Your task to perform on an android device: turn on javascript in the chrome app Image 0: 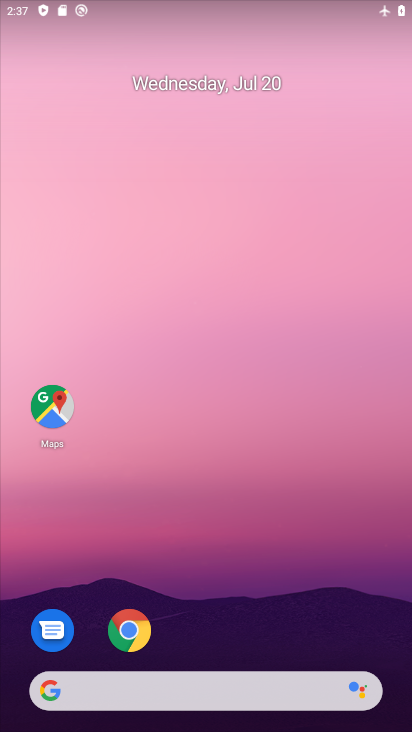
Step 0: drag from (248, 689) to (215, 192)
Your task to perform on an android device: turn on javascript in the chrome app Image 1: 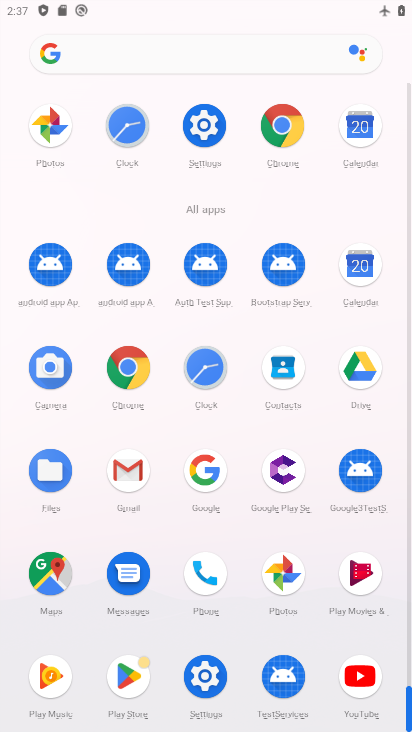
Step 1: click (287, 118)
Your task to perform on an android device: turn on javascript in the chrome app Image 2: 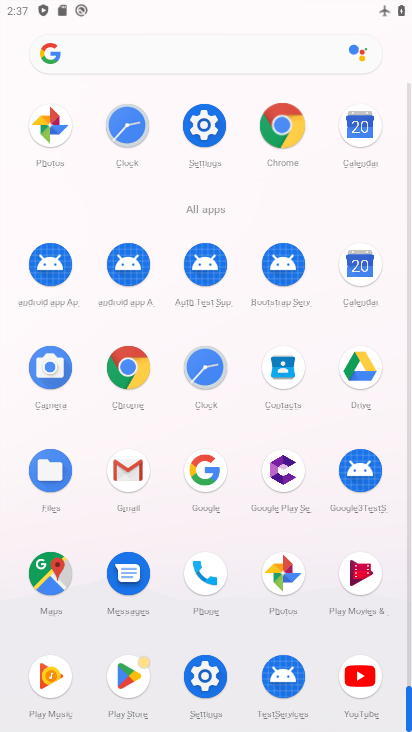
Step 2: click (286, 118)
Your task to perform on an android device: turn on javascript in the chrome app Image 3: 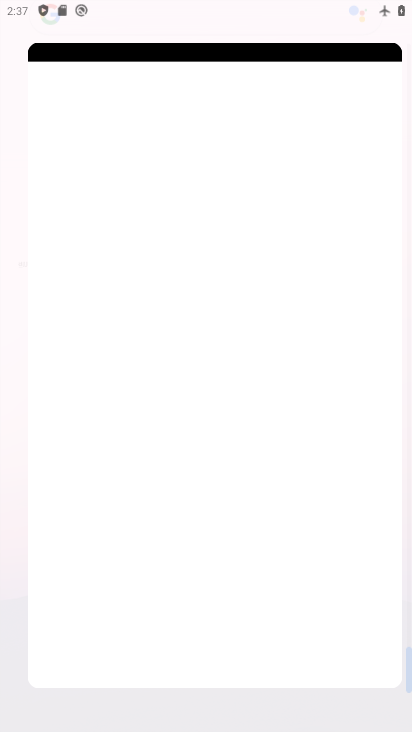
Step 3: click (286, 118)
Your task to perform on an android device: turn on javascript in the chrome app Image 4: 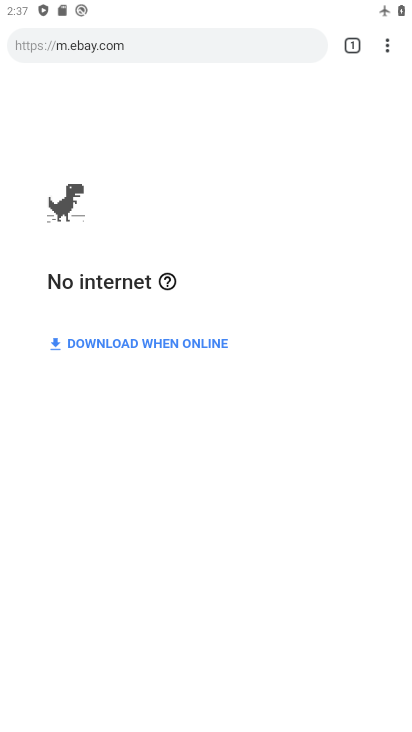
Step 4: drag from (387, 45) to (218, 505)
Your task to perform on an android device: turn on javascript in the chrome app Image 5: 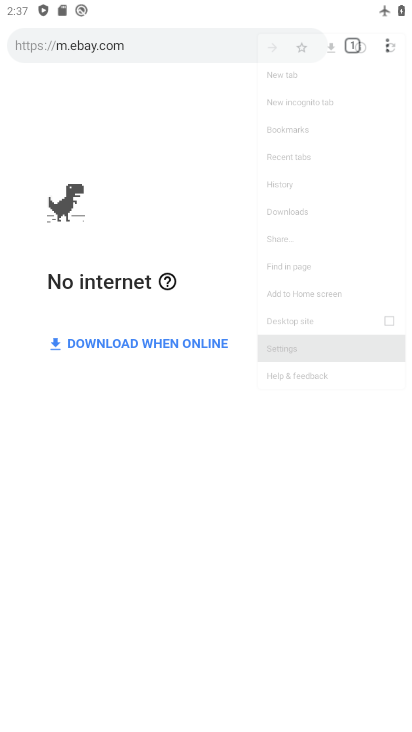
Step 5: click (220, 509)
Your task to perform on an android device: turn on javascript in the chrome app Image 6: 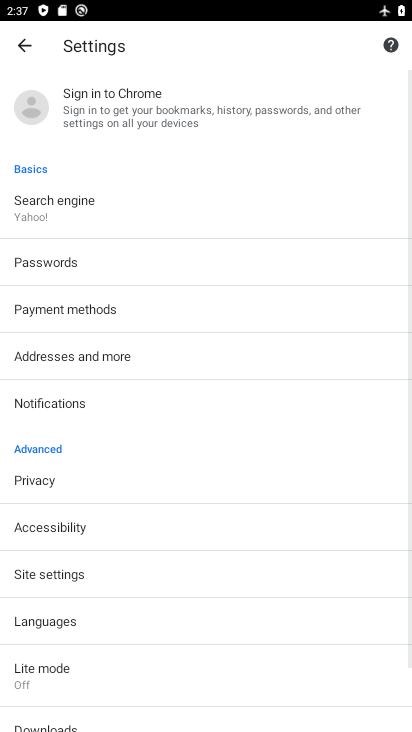
Step 6: drag from (97, 517) to (127, 275)
Your task to perform on an android device: turn on javascript in the chrome app Image 7: 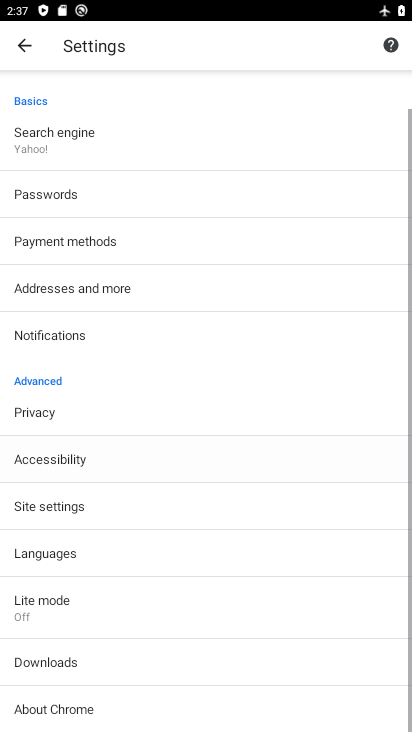
Step 7: drag from (163, 484) to (171, 275)
Your task to perform on an android device: turn on javascript in the chrome app Image 8: 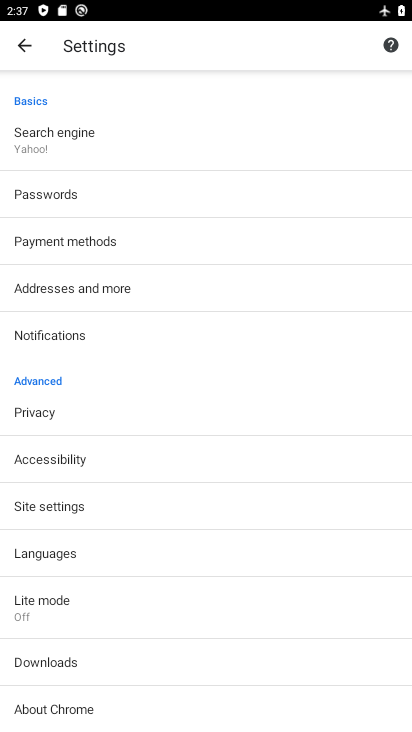
Step 8: click (39, 502)
Your task to perform on an android device: turn on javascript in the chrome app Image 9: 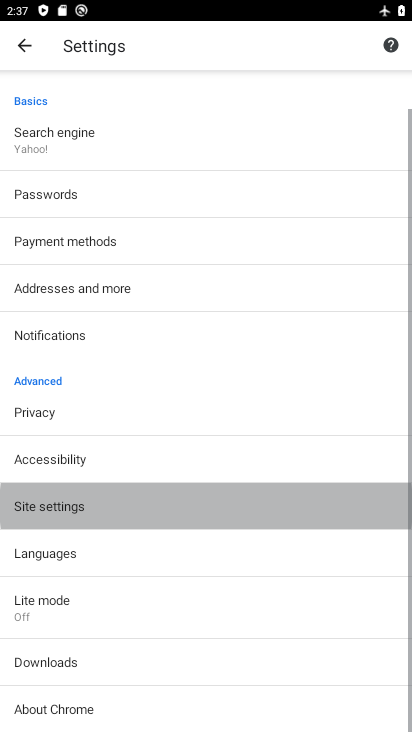
Step 9: click (38, 501)
Your task to perform on an android device: turn on javascript in the chrome app Image 10: 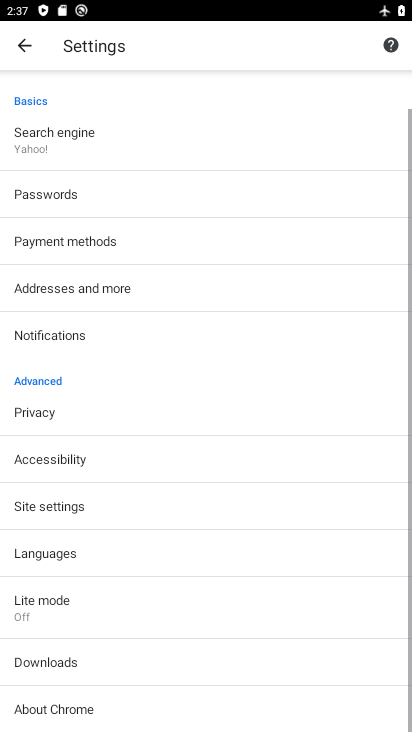
Step 10: click (38, 500)
Your task to perform on an android device: turn on javascript in the chrome app Image 11: 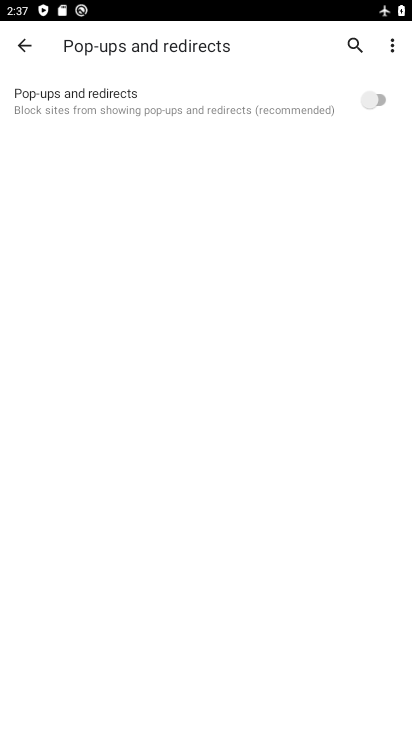
Step 11: click (20, 48)
Your task to perform on an android device: turn on javascript in the chrome app Image 12: 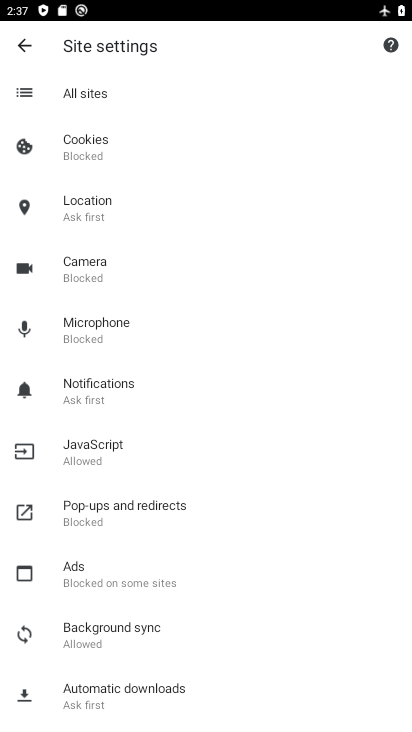
Step 12: click (93, 452)
Your task to perform on an android device: turn on javascript in the chrome app Image 13: 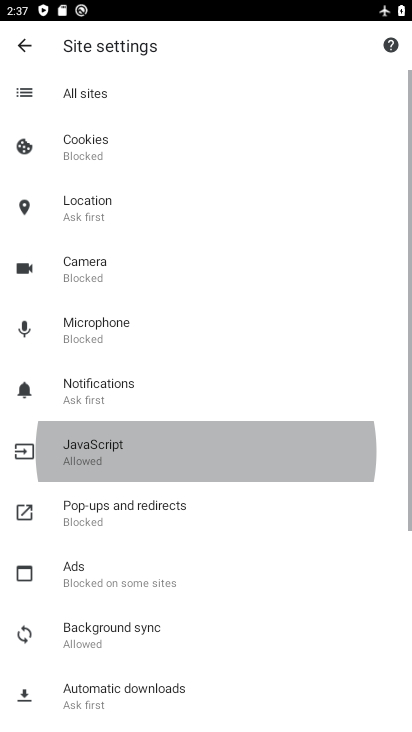
Step 13: click (110, 467)
Your task to perform on an android device: turn on javascript in the chrome app Image 14: 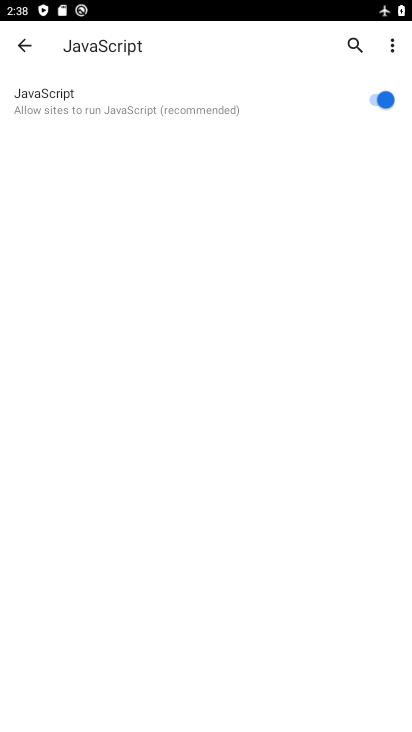
Step 14: task complete